Your task to perform on an android device: Open network settings Image 0: 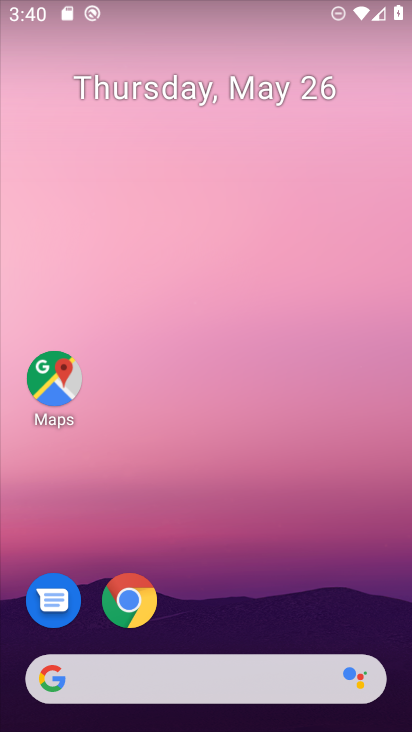
Step 0: drag from (214, 554) to (163, 19)
Your task to perform on an android device: Open network settings Image 1: 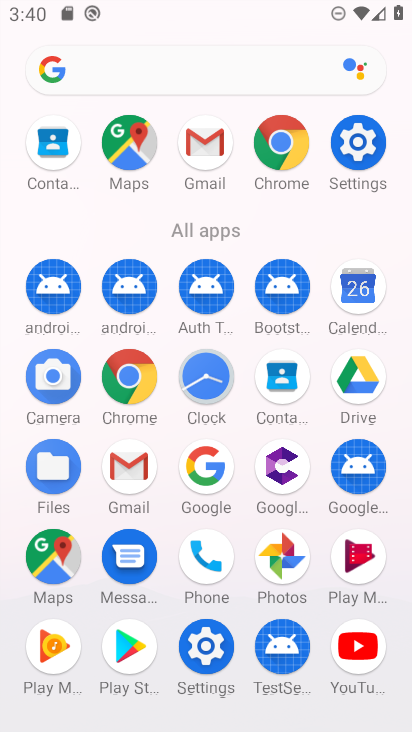
Step 1: drag from (21, 566) to (28, 254)
Your task to perform on an android device: Open network settings Image 2: 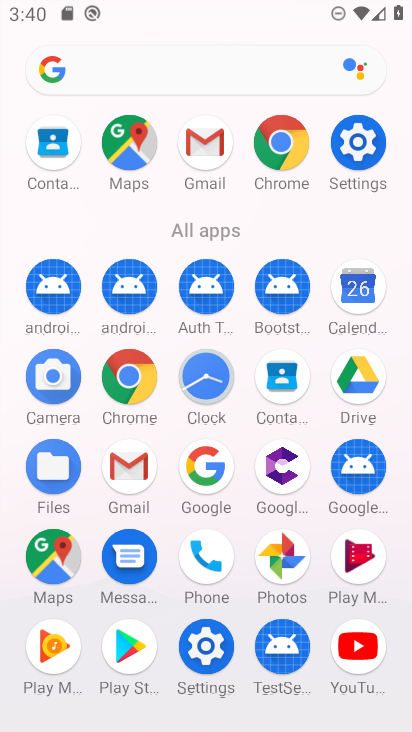
Step 2: click (197, 641)
Your task to perform on an android device: Open network settings Image 3: 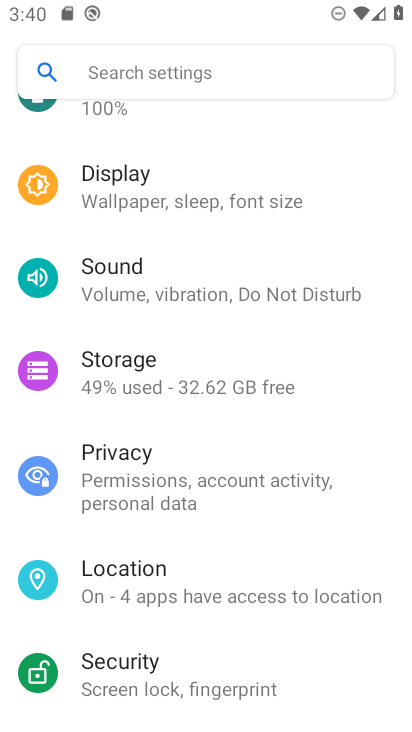
Step 3: drag from (259, 191) to (267, 613)
Your task to perform on an android device: Open network settings Image 4: 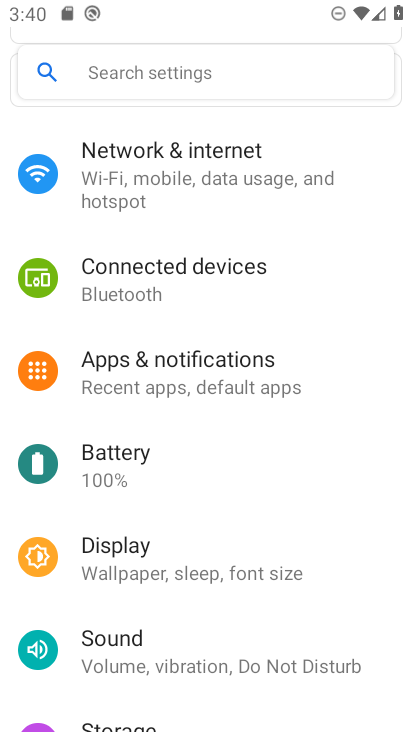
Step 4: drag from (293, 176) to (275, 514)
Your task to perform on an android device: Open network settings Image 5: 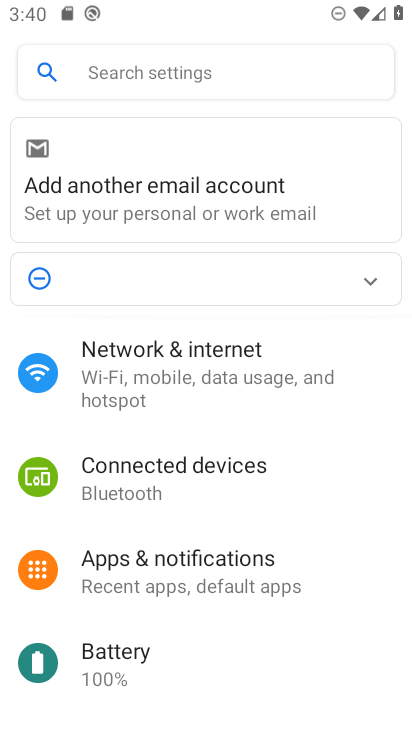
Step 5: click (268, 372)
Your task to perform on an android device: Open network settings Image 6: 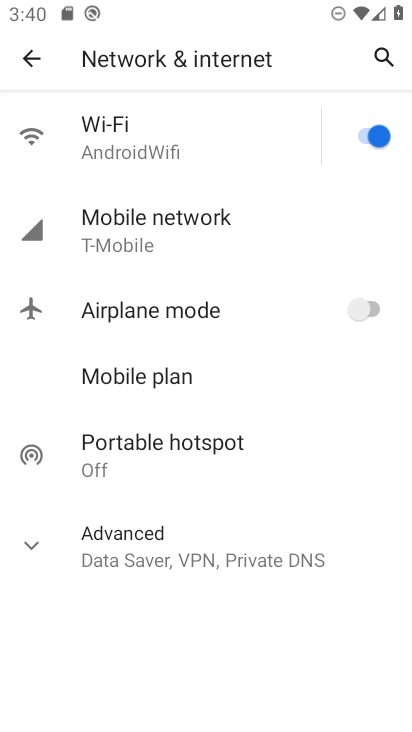
Step 6: click (35, 557)
Your task to perform on an android device: Open network settings Image 7: 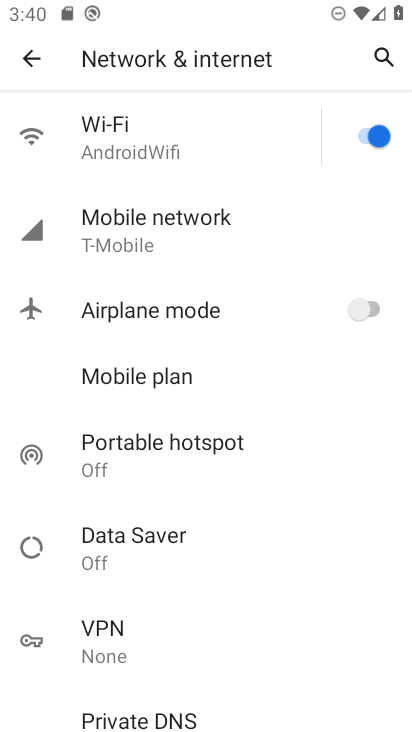
Step 7: task complete